Your task to perform on an android device: turn notification dots off Image 0: 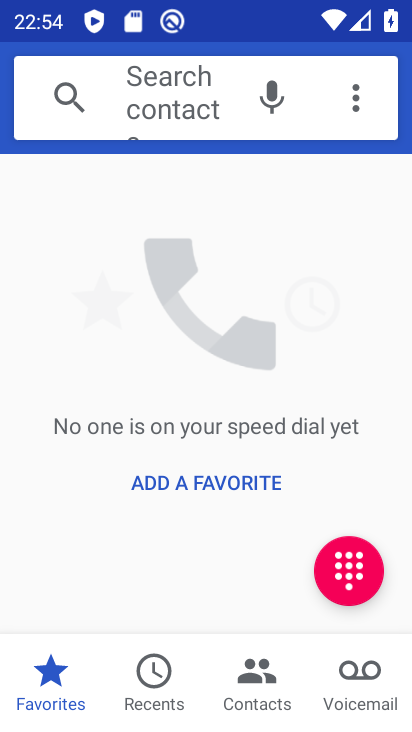
Step 0: press back button
Your task to perform on an android device: turn notification dots off Image 1: 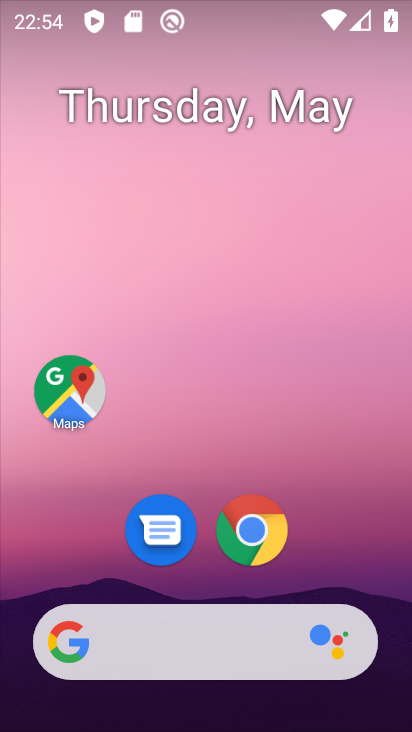
Step 1: drag from (308, 555) to (292, 7)
Your task to perform on an android device: turn notification dots off Image 2: 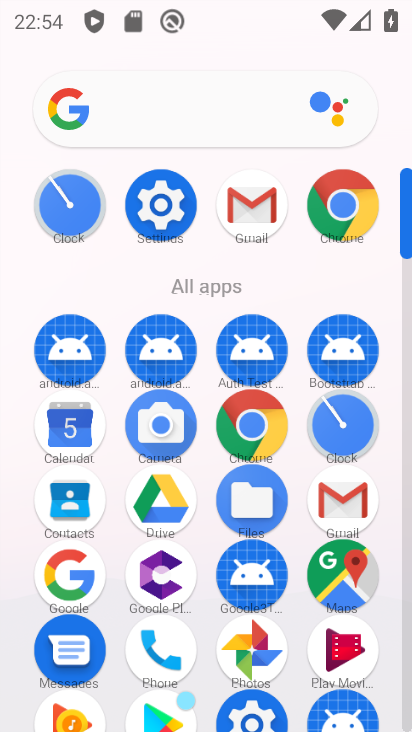
Step 2: click (158, 207)
Your task to perform on an android device: turn notification dots off Image 3: 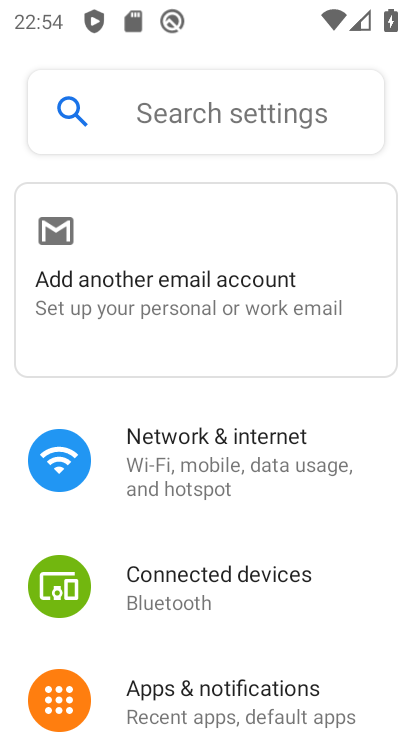
Step 3: drag from (228, 508) to (269, 380)
Your task to perform on an android device: turn notification dots off Image 4: 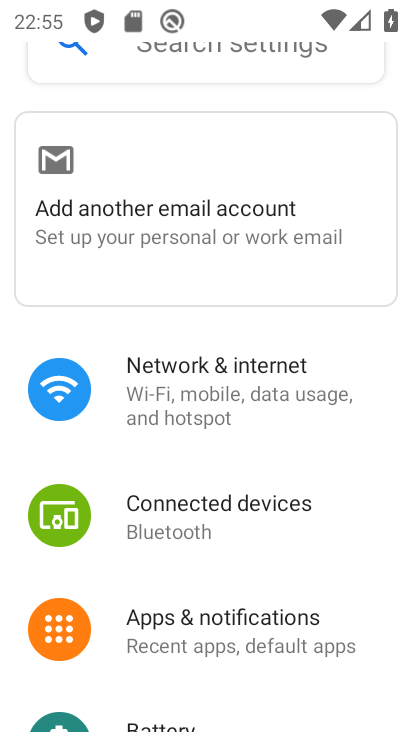
Step 4: click (225, 617)
Your task to perform on an android device: turn notification dots off Image 5: 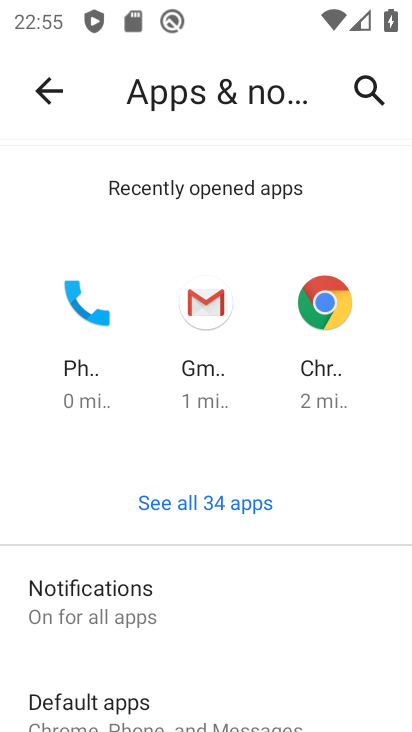
Step 5: drag from (169, 651) to (255, 527)
Your task to perform on an android device: turn notification dots off Image 6: 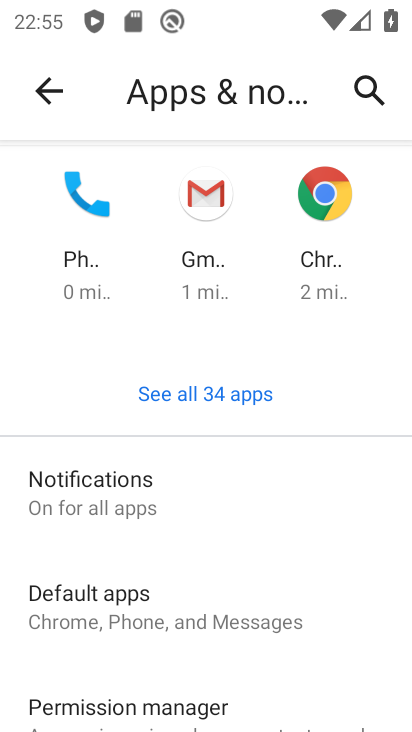
Step 6: click (81, 477)
Your task to perform on an android device: turn notification dots off Image 7: 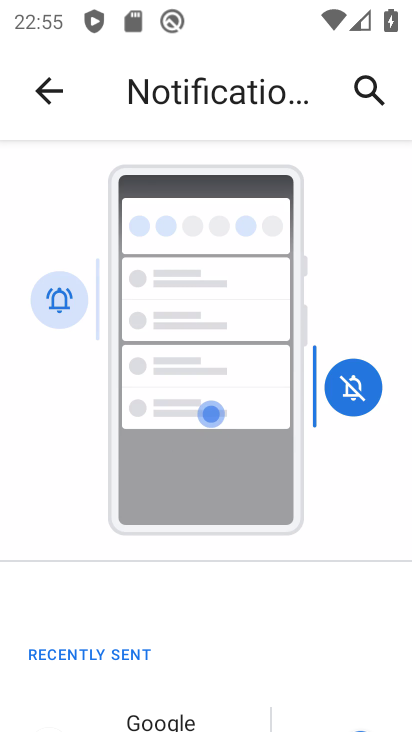
Step 7: drag from (197, 672) to (292, 452)
Your task to perform on an android device: turn notification dots off Image 8: 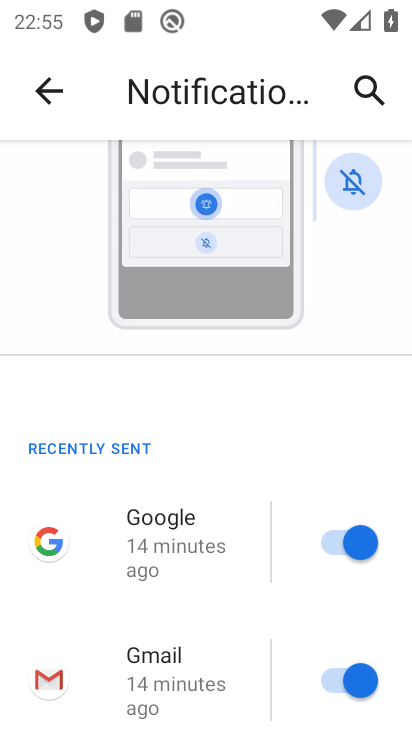
Step 8: drag from (232, 557) to (267, 403)
Your task to perform on an android device: turn notification dots off Image 9: 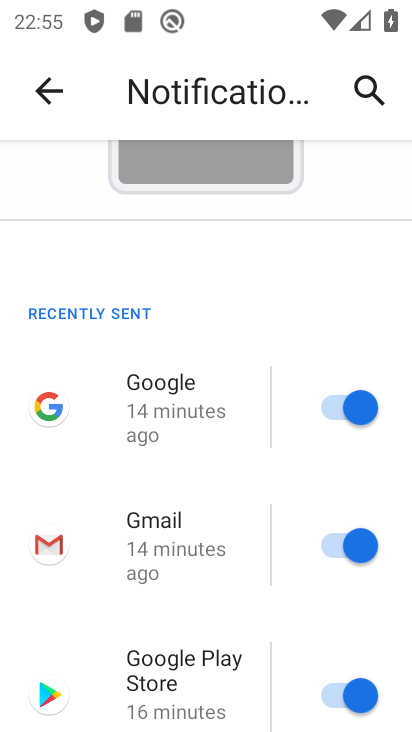
Step 9: drag from (168, 667) to (229, 457)
Your task to perform on an android device: turn notification dots off Image 10: 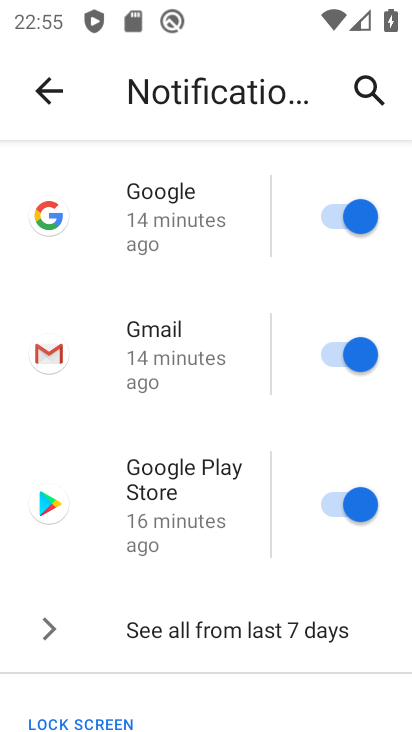
Step 10: drag from (168, 676) to (244, 505)
Your task to perform on an android device: turn notification dots off Image 11: 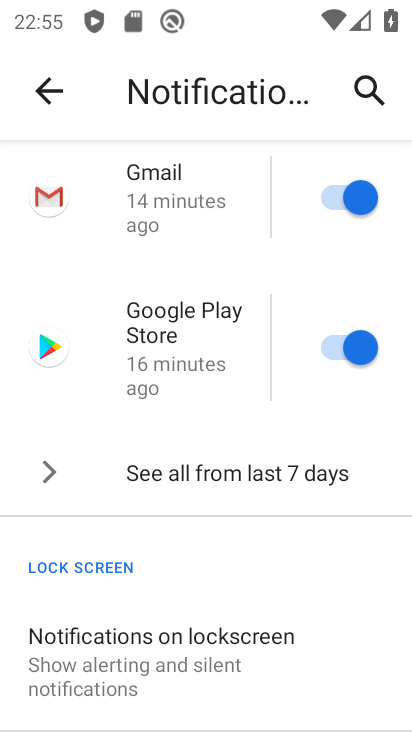
Step 11: drag from (175, 667) to (268, 532)
Your task to perform on an android device: turn notification dots off Image 12: 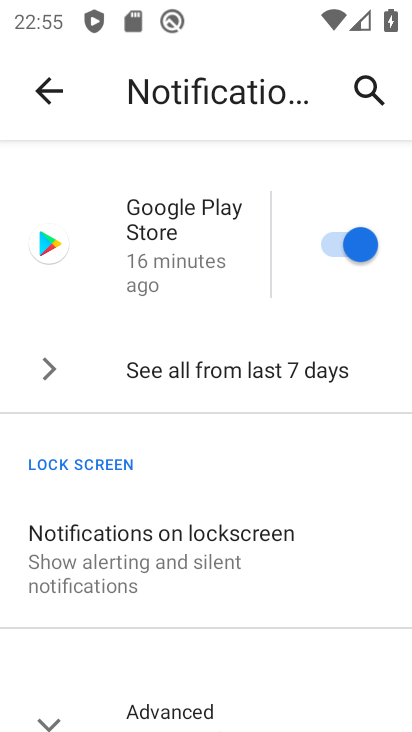
Step 12: drag from (191, 682) to (254, 557)
Your task to perform on an android device: turn notification dots off Image 13: 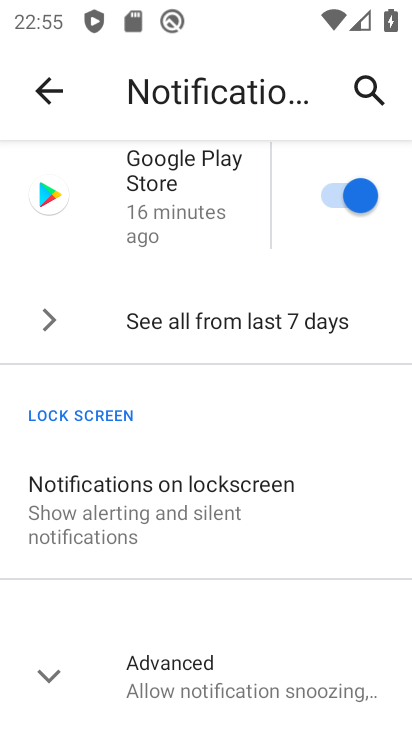
Step 13: click (176, 656)
Your task to perform on an android device: turn notification dots off Image 14: 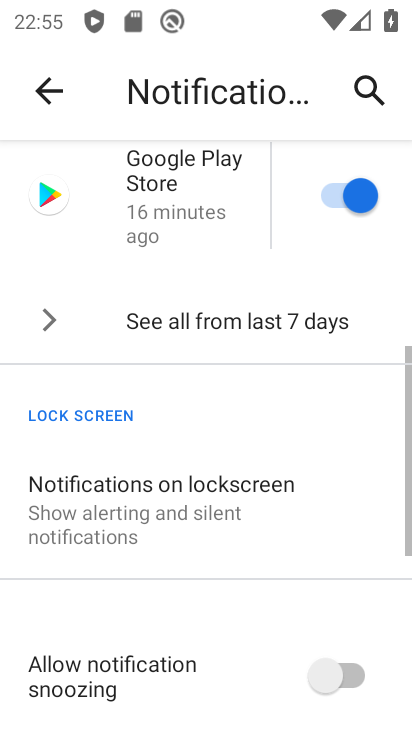
Step 14: drag from (176, 656) to (272, 513)
Your task to perform on an android device: turn notification dots off Image 15: 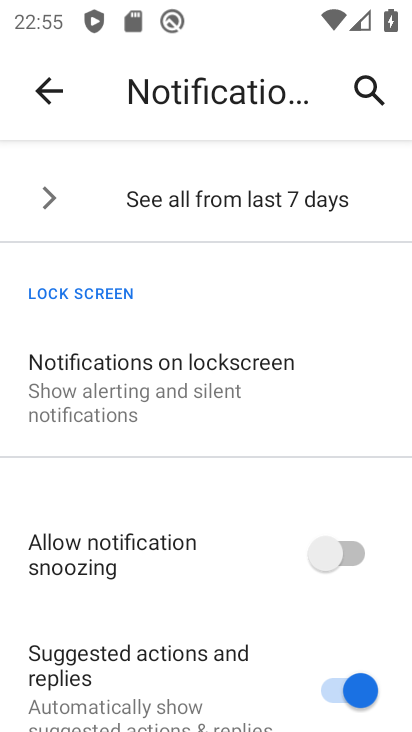
Step 15: drag from (183, 684) to (261, 496)
Your task to perform on an android device: turn notification dots off Image 16: 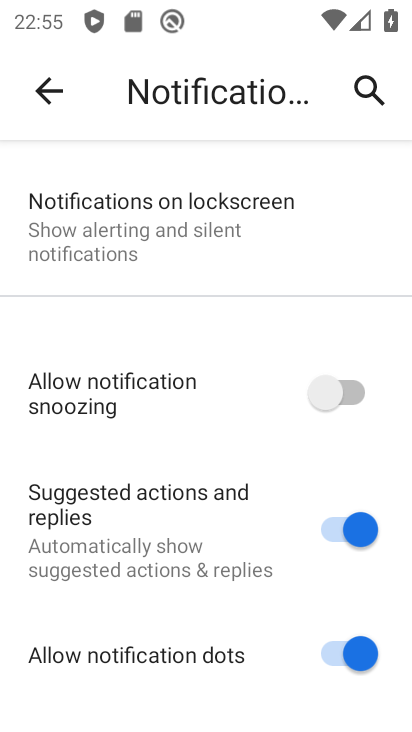
Step 16: click (360, 651)
Your task to perform on an android device: turn notification dots off Image 17: 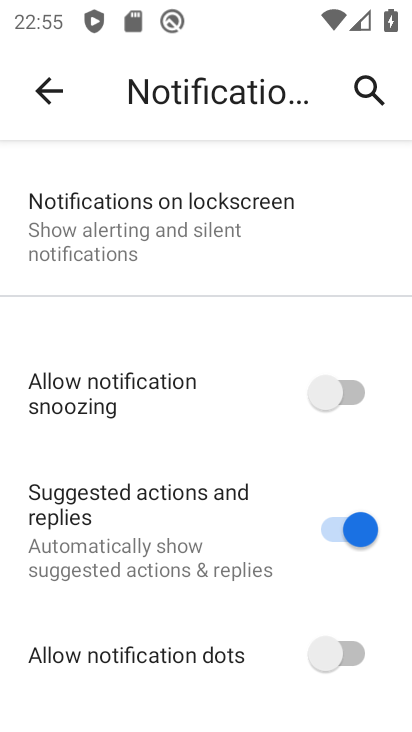
Step 17: task complete